Your task to perform on an android device: turn off location history Image 0: 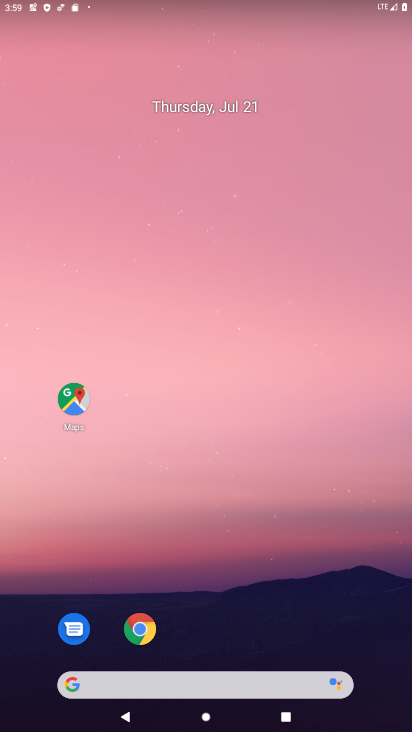
Step 0: drag from (355, 628) to (281, 106)
Your task to perform on an android device: turn off location history Image 1: 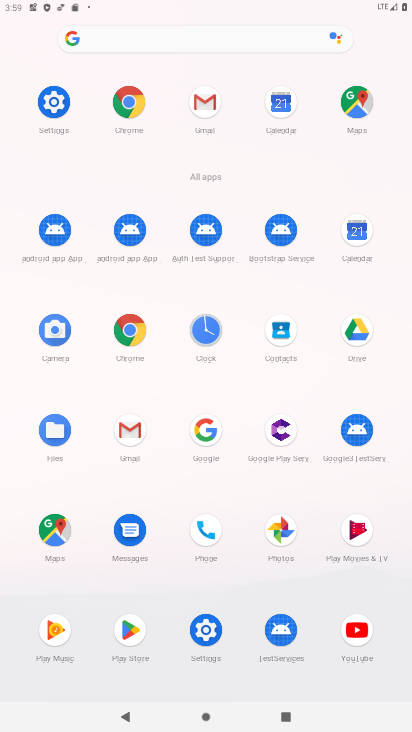
Step 1: click (355, 95)
Your task to perform on an android device: turn off location history Image 2: 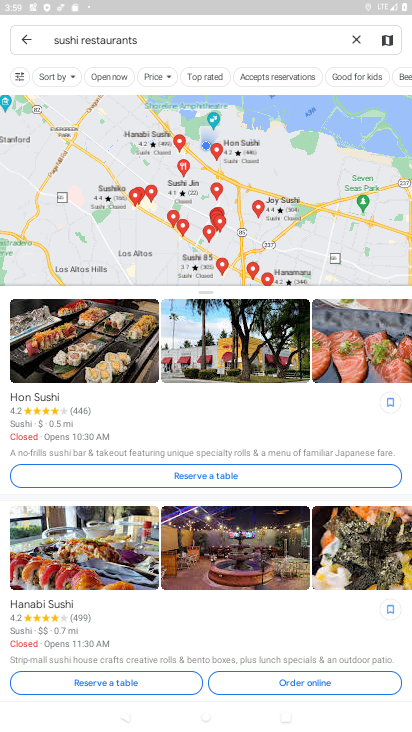
Step 2: click (23, 33)
Your task to perform on an android device: turn off location history Image 3: 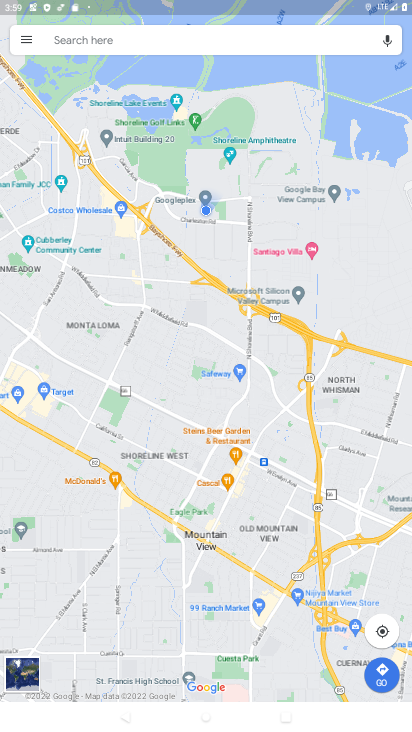
Step 3: click (31, 45)
Your task to perform on an android device: turn off location history Image 4: 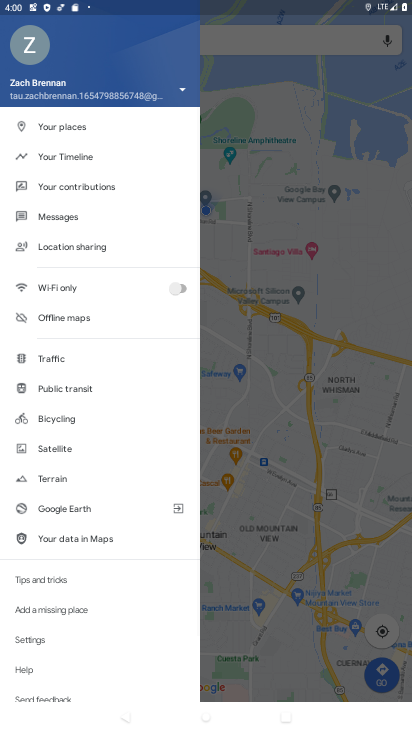
Step 4: click (73, 152)
Your task to perform on an android device: turn off location history Image 5: 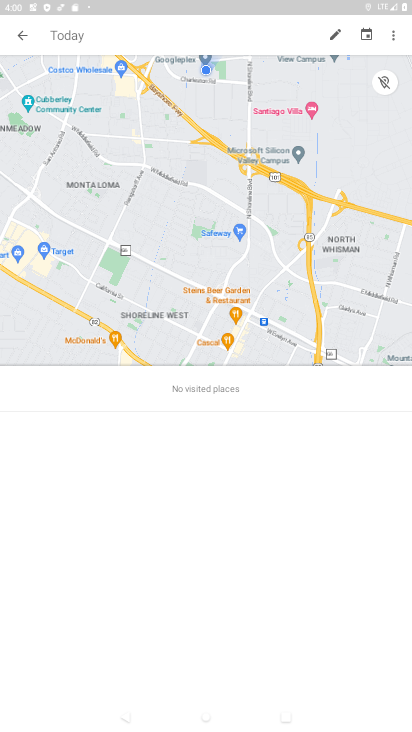
Step 5: click (390, 37)
Your task to perform on an android device: turn off location history Image 6: 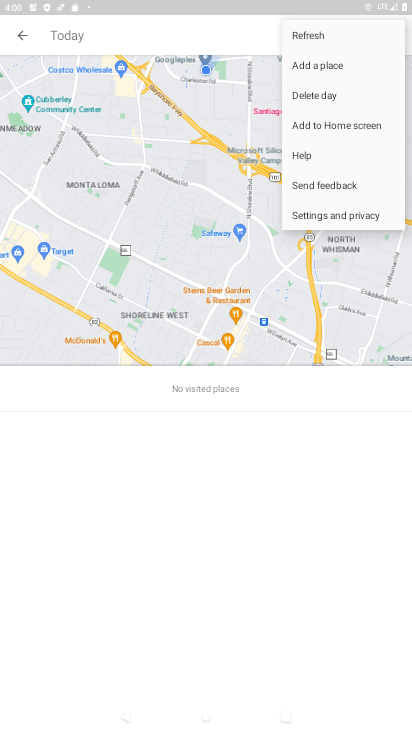
Step 6: click (351, 211)
Your task to perform on an android device: turn off location history Image 7: 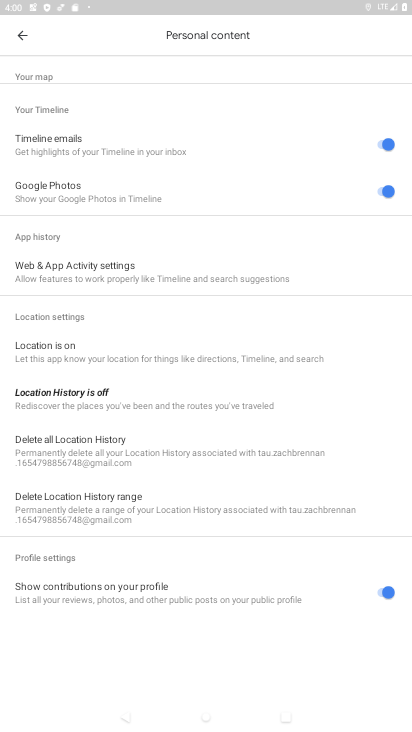
Step 7: task complete